Your task to perform on an android device: Go to Android settings Image 0: 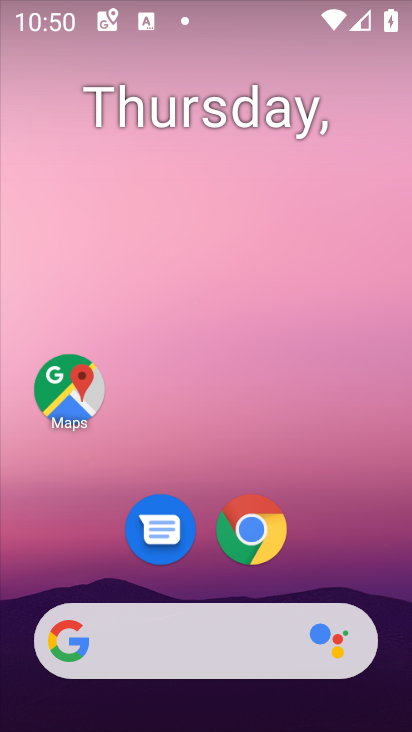
Step 0: drag from (202, 677) to (188, 267)
Your task to perform on an android device: Go to Android settings Image 1: 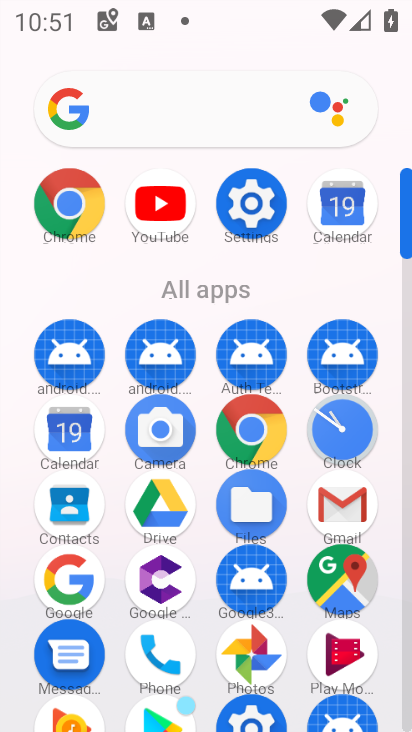
Step 1: click (272, 230)
Your task to perform on an android device: Go to Android settings Image 2: 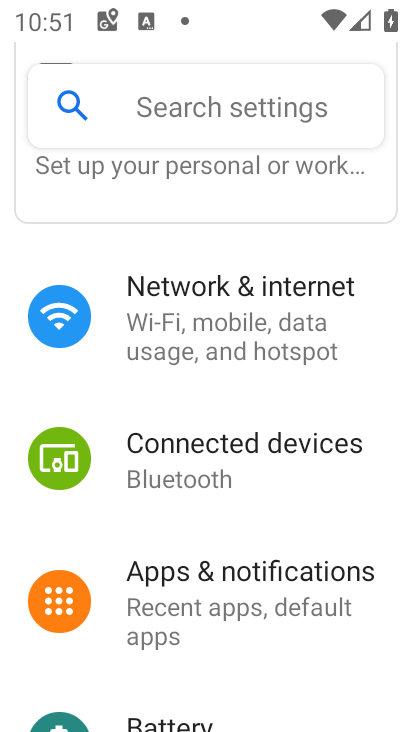
Step 2: drag from (252, 549) to (230, 75)
Your task to perform on an android device: Go to Android settings Image 3: 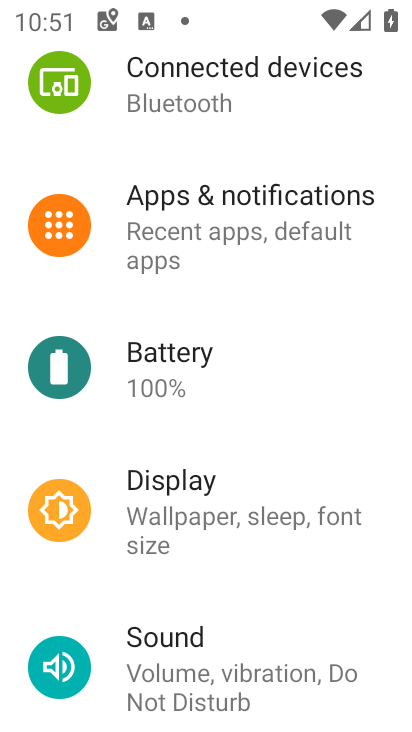
Step 3: drag from (239, 604) to (240, 182)
Your task to perform on an android device: Go to Android settings Image 4: 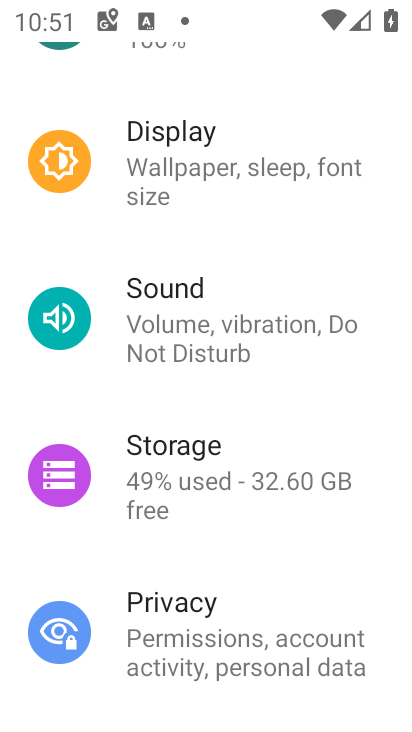
Step 4: drag from (258, 601) to (234, 70)
Your task to perform on an android device: Go to Android settings Image 5: 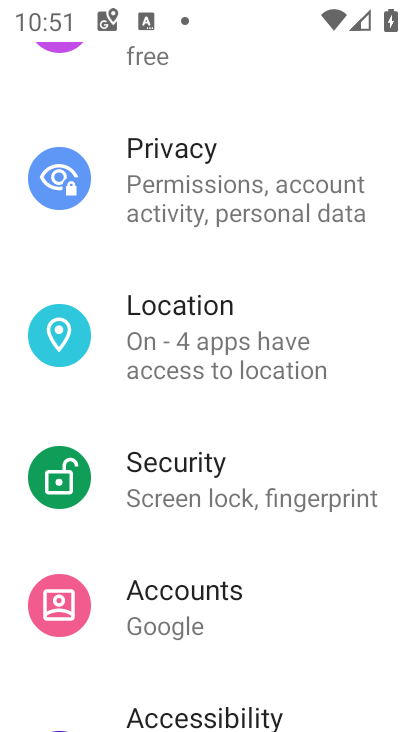
Step 5: drag from (221, 626) to (202, 134)
Your task to perform on an android device: Go to Android settings Image 6: 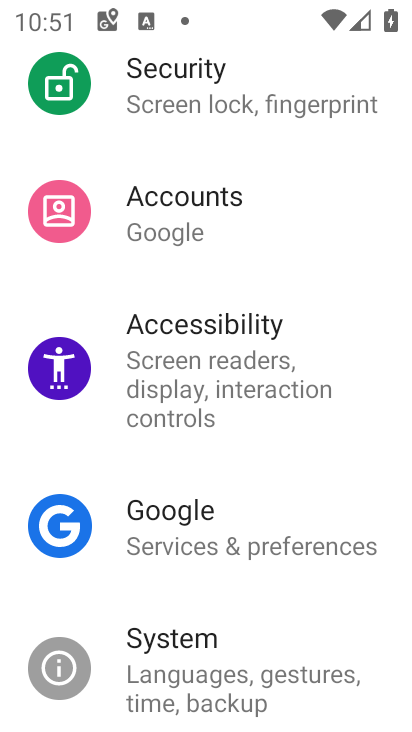
Step 6: drag from (215, 501) to (170, 84)
Your task to perform on an android device: Go to Android settings Image 7: 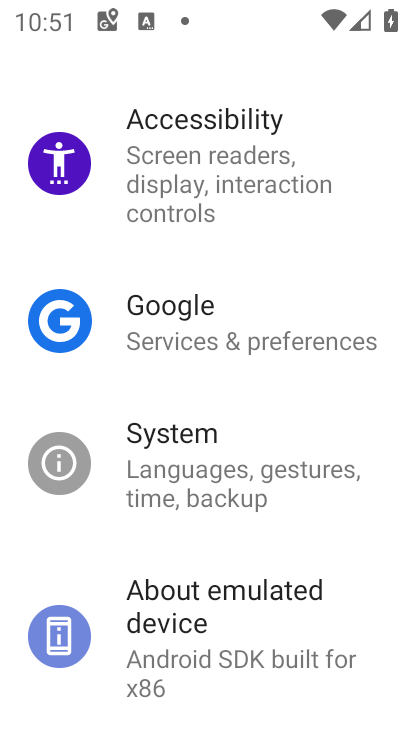
Step 7: click (177, 630)
Your task to perform on an android device: Go to Android settings Image 8: 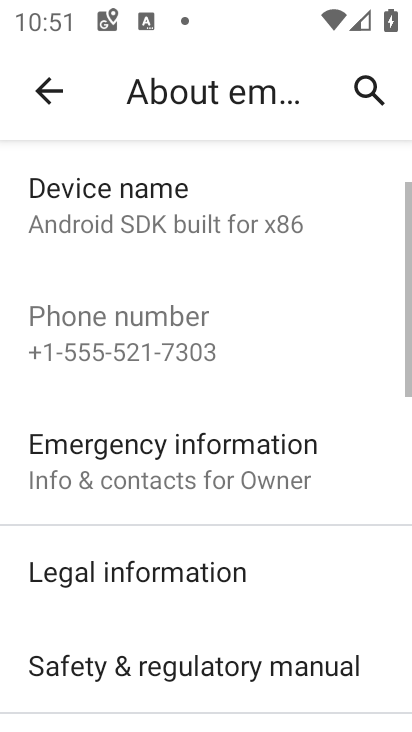
Step 8: drag from (206, 606) to (208, 240)
Your task to perform on an android device: Go to Android settings Image 9: 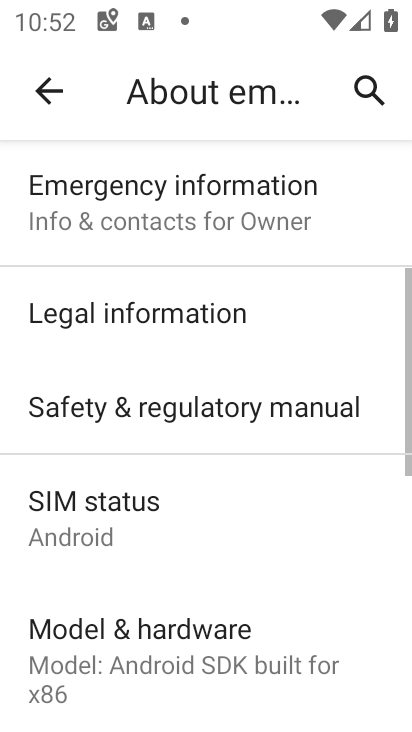
Step 9: drag from (228, 472) to (222, 178)
Your task to perform on an android device: Go to Android settings Image 10: 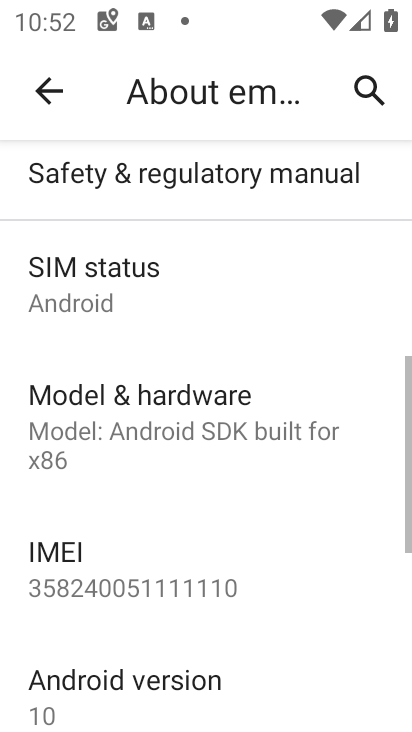
Step 10: drag from (209, 563) to (198, 330)
Your task to perform on an android device: Go to Android settings Image 11: 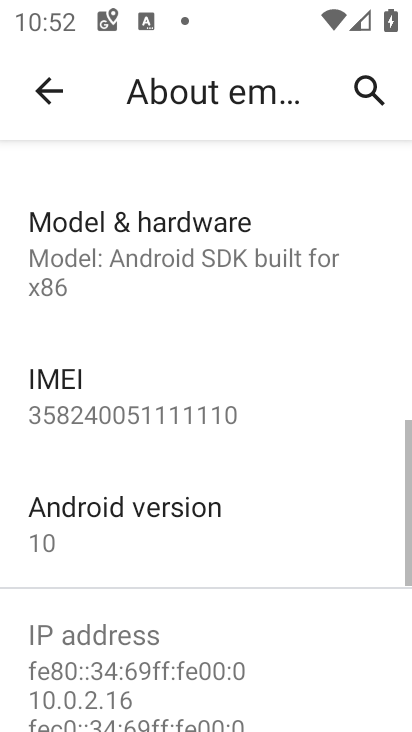
Step 11: click (169, 507)
Your task to perform on an android device: Go to Android settings Image 12: 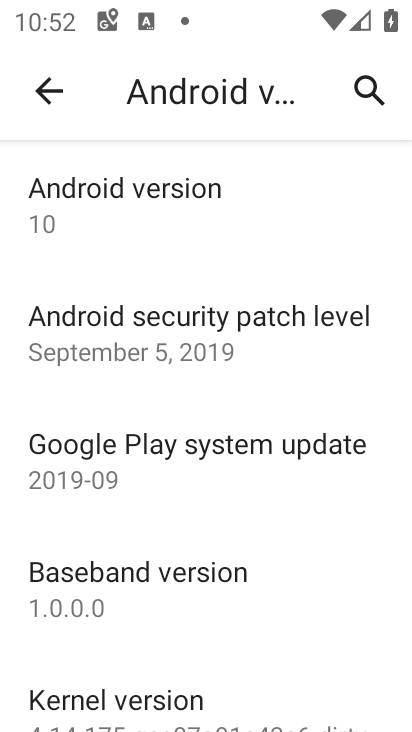
Step 12: task complete